Your task to perform on an android device: toggle pop-ups in chrome Image 0: 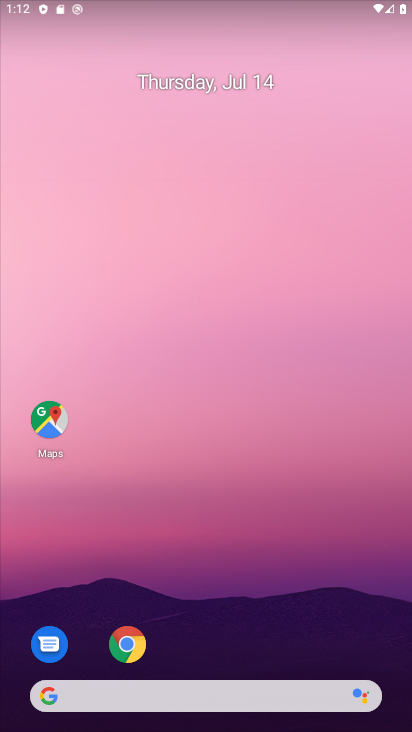
Step 0: click (120, 648)
Your task to perform on an android device: toggle pop-ups in chrome Image 1: 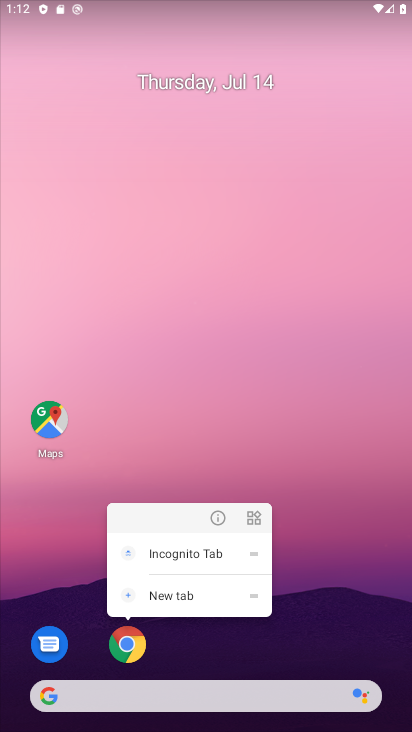
Step 1: click (125, 648)
Your task to perform on an android device: toggle pop-ups in chrome Image 2: 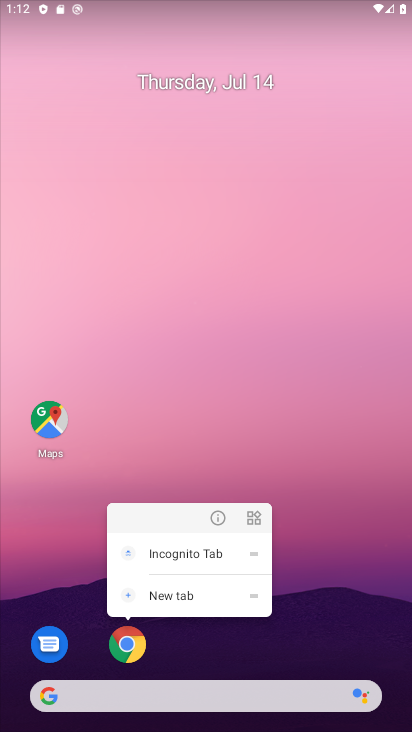
Step 2: click (132, 648)
Your task to perform on an android device: toggle pop-ups in chrome Image 3: 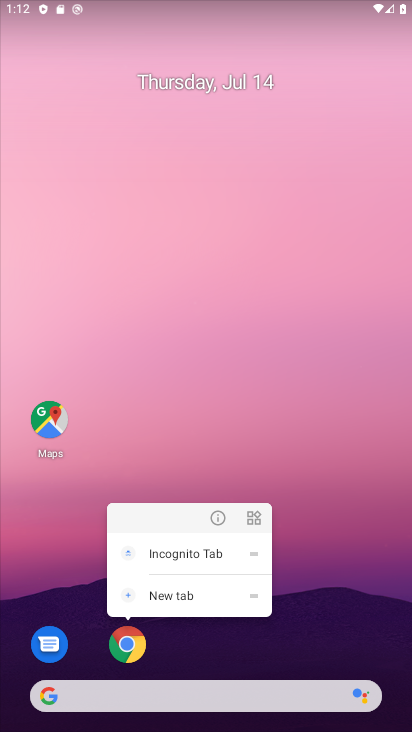
Step 3: click (136, 643)
Your task to perform on an android device: toggle pop-ups in chrome Image 4: 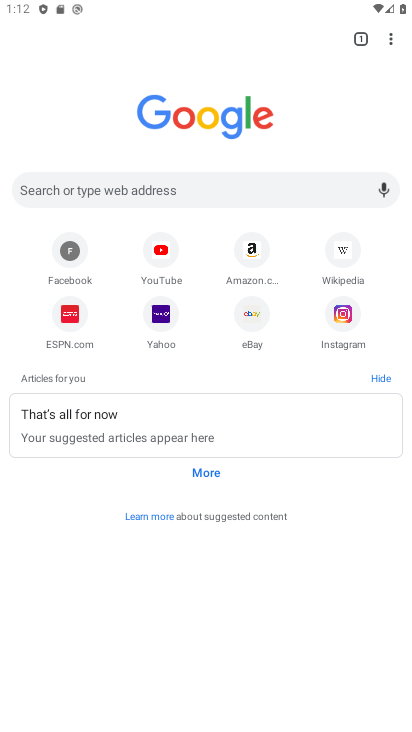
Step 4: drag from (398, 34) to (288, 334)
Your task to perform on an android device: toggle pop-ups in chrome Image 5: 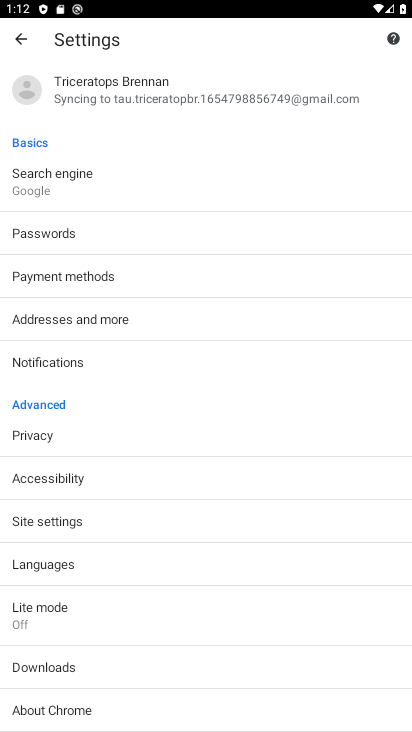
Step 5: click (106, 523)
Your task to perform on an android device: toggle pop-ups in chrome Image 6: 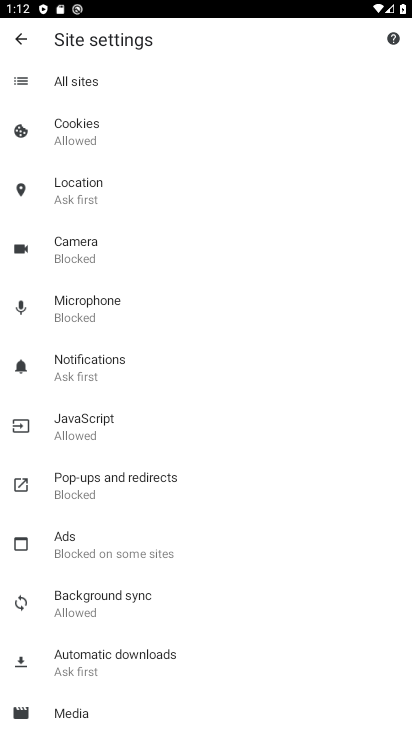
Step 6: click (131, 495)
Your task to perform on an android device: toggle pop-ups in chrome Image 7: 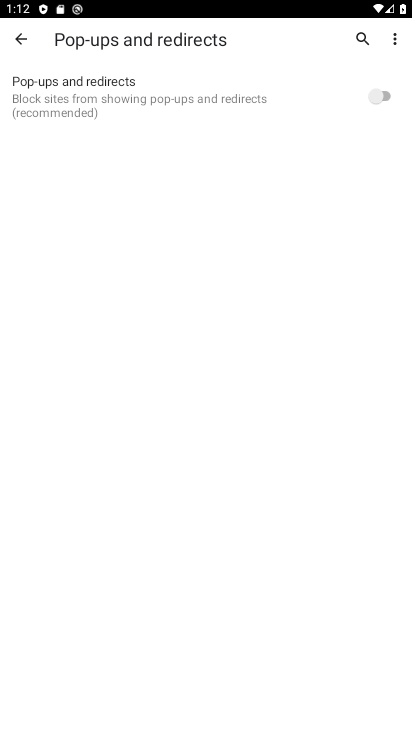
Step 7: click (394, 94)
Your task to perform on an android device: toggle pop-ups in chrome Image 8: 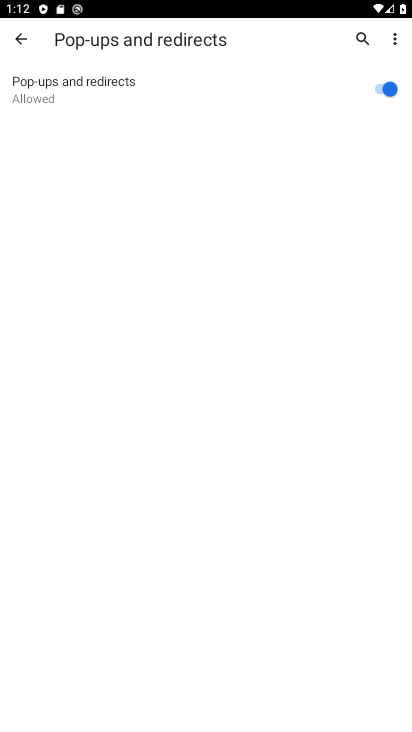
Step 8: task complete